Your task to perform on an android device: Open Youtube and go to the subscriptions tab Image 0: 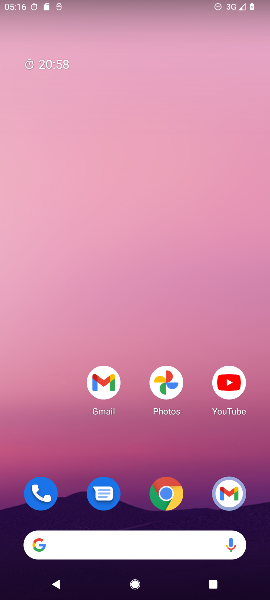
Step 0: press home button
Your task to perform on an android device: Open Youtube and go to the subscriptions tab Image 1: 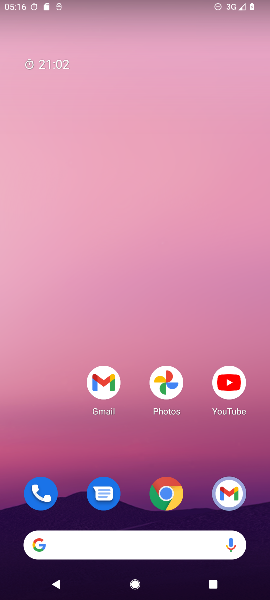
Step 1: drag from (59, 461) to (45, 162)
Your task to perform on an android device: Open Youtube and go to the subscriptions tab Image 2: 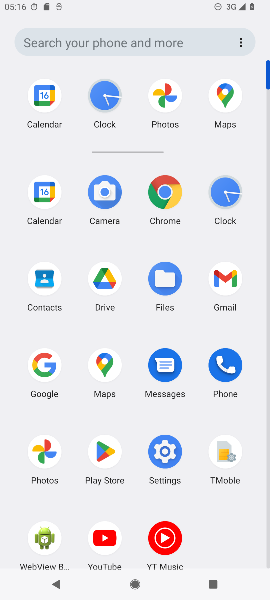
Step 2: click (105, 542)
Your task to perform on an android device: Open Youtube and go to the subscriptions tab Image 3: 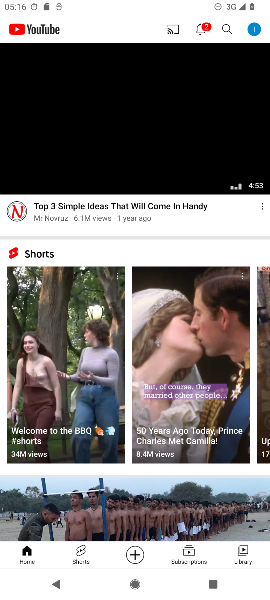
Step 3: click (184, 556)
Your task to perform on an android device: Open Youtube and go to the subscriptions tab Image 4: 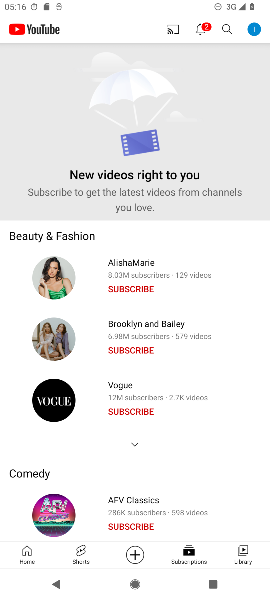
Step 4: task complete